Your task to perform on an android device: Open settings on Google Maps Image 0: 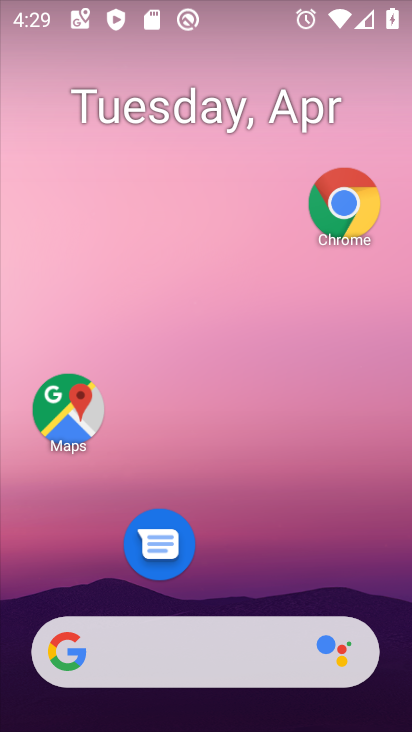
Step 0: drag from (236, 455) to (312, 14)
Your task to perform on an android device: Open settings on Google Maps Image 1: 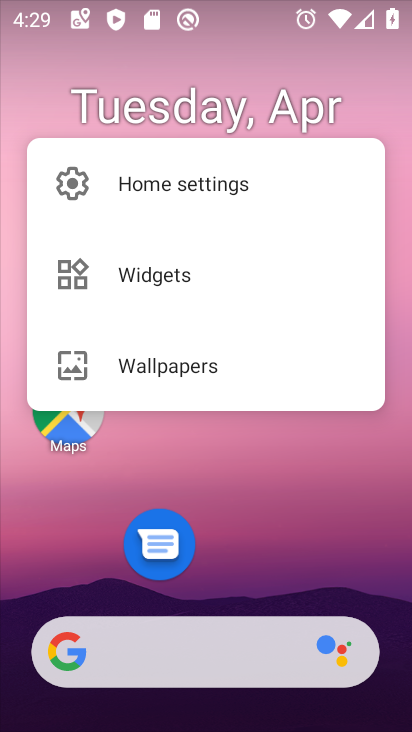
Step 1: drag from (210, 561) to (311, 3)
Your task to perform on an android device: Open settings on Google Maps Image 2: 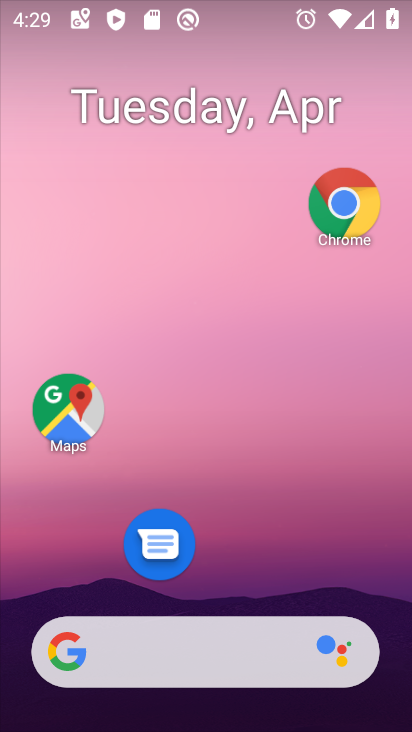
Step 2: click (281, 430)
Your task to perform on an android device: Open settings on Google Maps Image 3: 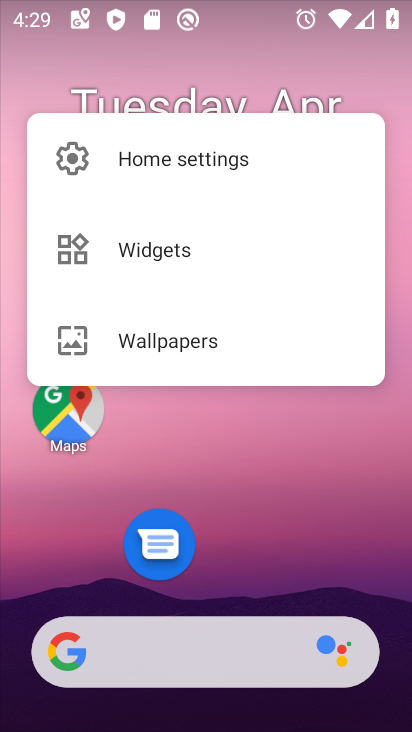
Step 3: drag from (209, 552) to (232, 406)
Your task to perform on an android device: Open settings on Google Maps Image 4: 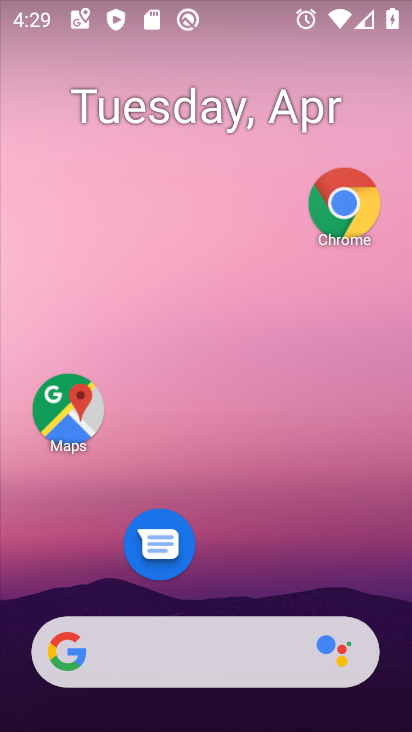
Step 4: drag from (251, 571) to (301, 1)
Your task to perform on an android device: Open settings on Google Maps Image 5: 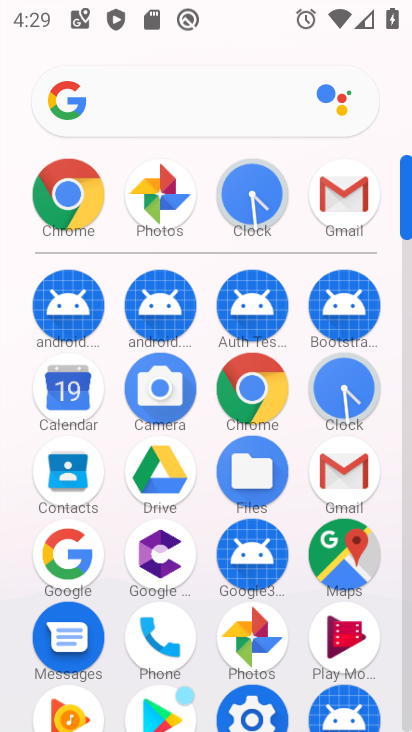
Step 5: click (342, 558)
Your task to perform on an android device: Open settings on Google Maps Image 6: 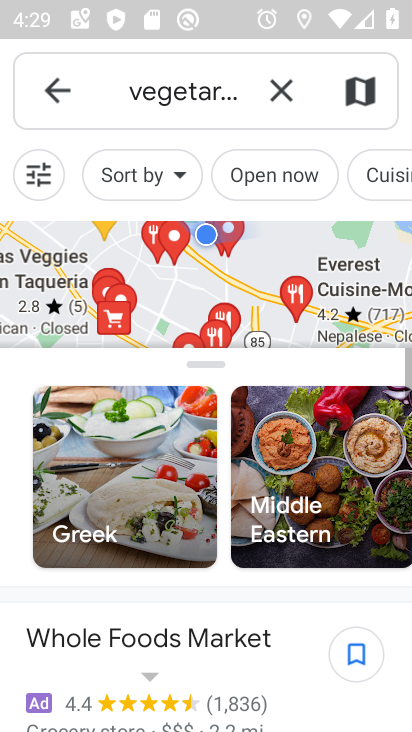
Step 6: click (61, 86)
Your task to perform on an android device: Open settings on Google Maps Image 7: 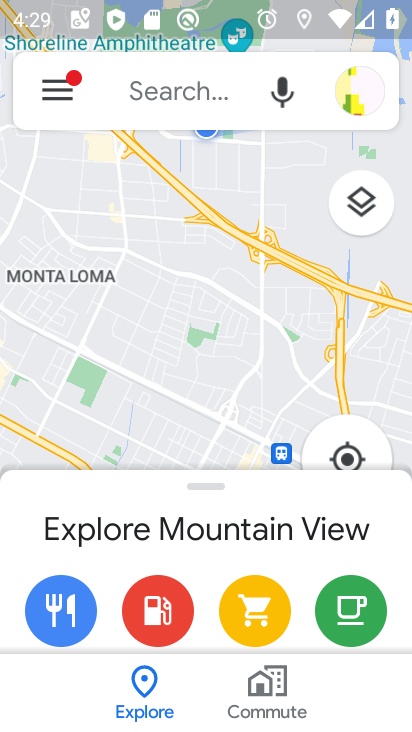
Step 7: click (60, 87)
Your task to perform on an android device: Open settings on Google Maps Image 8: 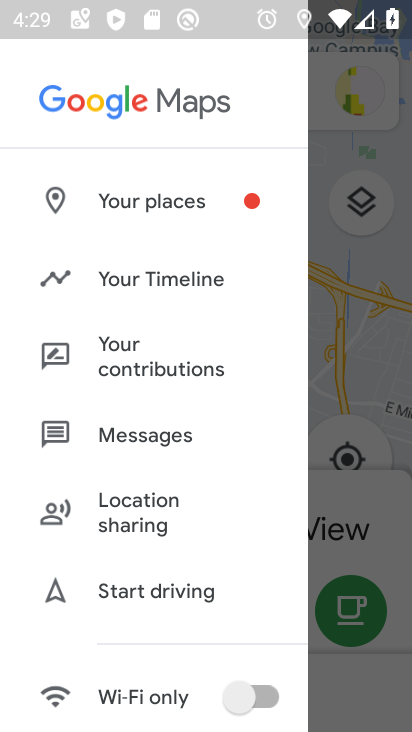
Step 8: drag from (105, 642) to (166, 279)
Your task to perform on an android device: Open settings on Google Maps Image 9: 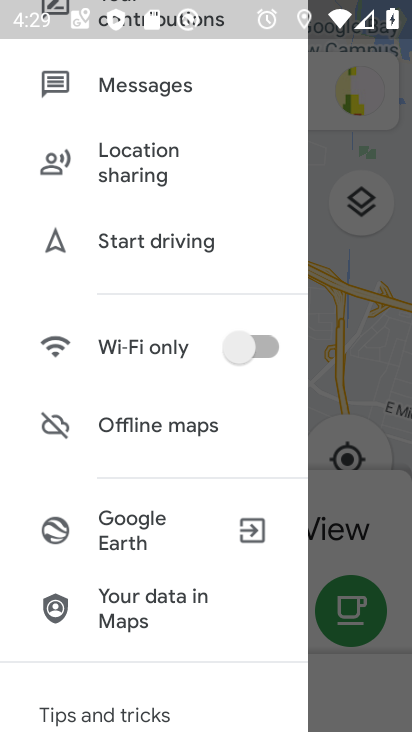
Step 9: drag from (114, 593) to (144, 16)
Your task to perform on an android device: Open settings on Google Maps Image 10: 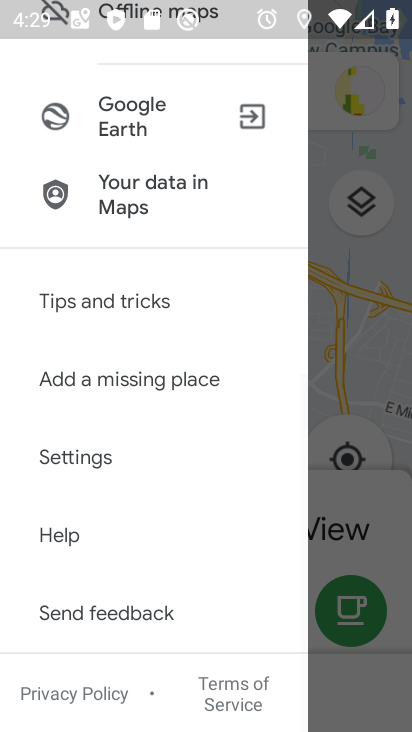
Step 10: click (94, 473)
Your task to perform on an android device: Open settings on Google Maps Image 11: 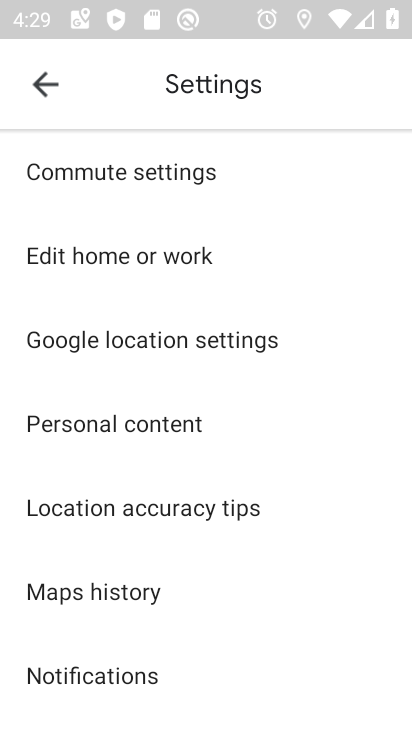
Step 11: task complete